Your task to perform on an android device: toggle improve location accuracy Image 0: 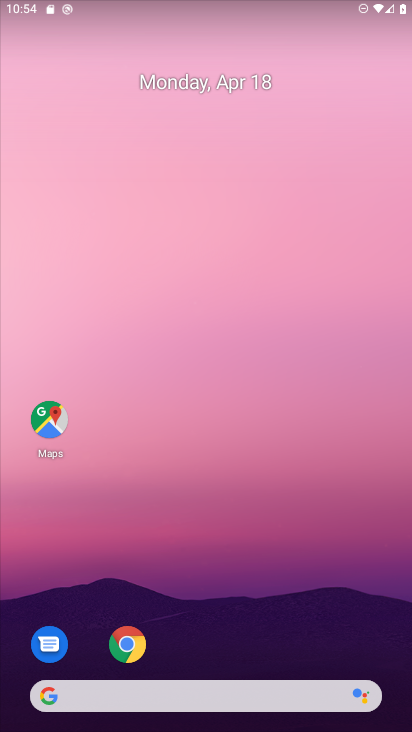
Step 0: drag from (202, 515) to (335, 75)
Your task to perform on an android device: toggle improve location accuracy Image 1: 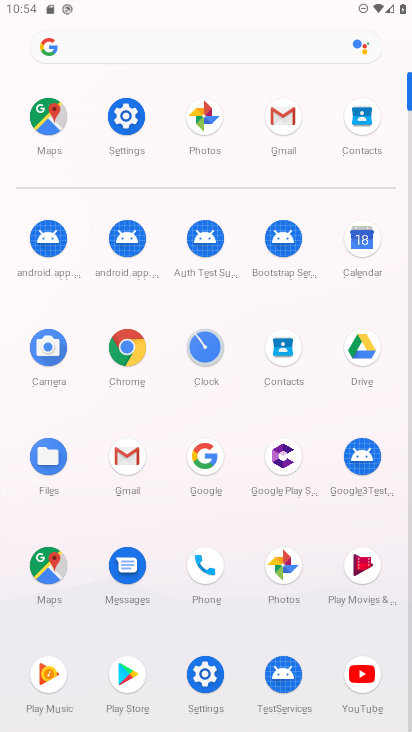
Step 1: click (130, 125)
Your task to perform on an android device: toggle improve location accuracy Image 2: 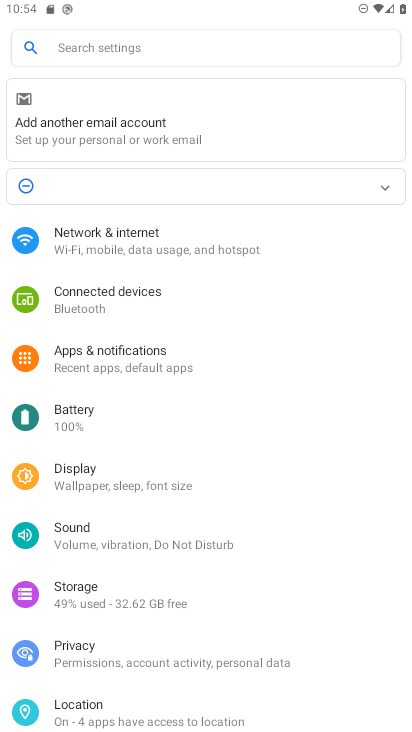
Step 2: click (121, 706)
Your task to perform on an android device: toggle improve location accuracy Image 3: 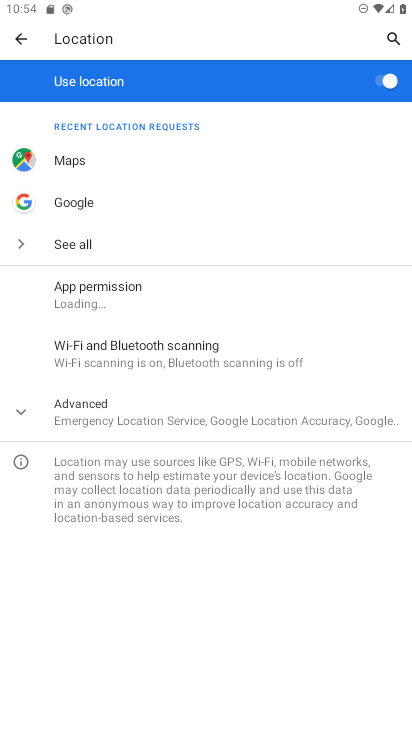
Step 3: click (17, 408)
Your task to perform on an android device: toggle improve location accuracy Image 4: 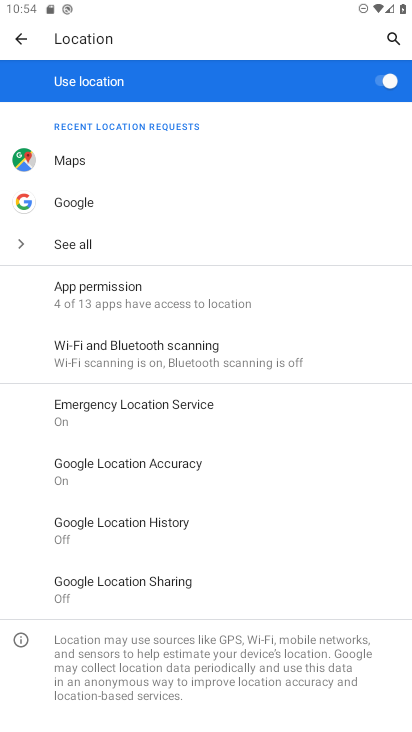
Step 4: click (130, 468)
Your task to perform on an android device: toggle improve location accuracy Image 5: 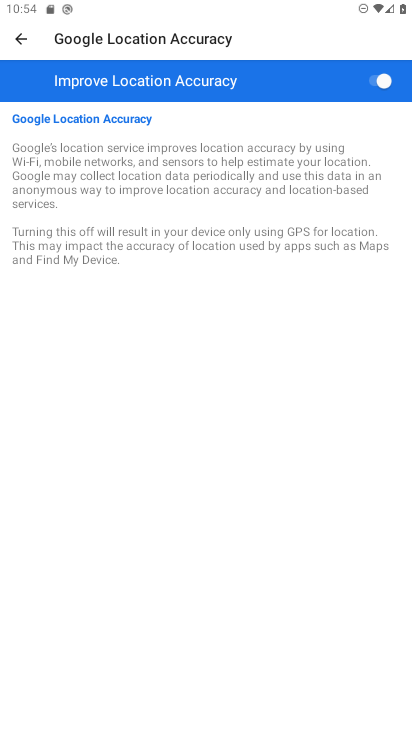
Step 5: task complete